Your task to perform on an android device: Open display settings Image 0: 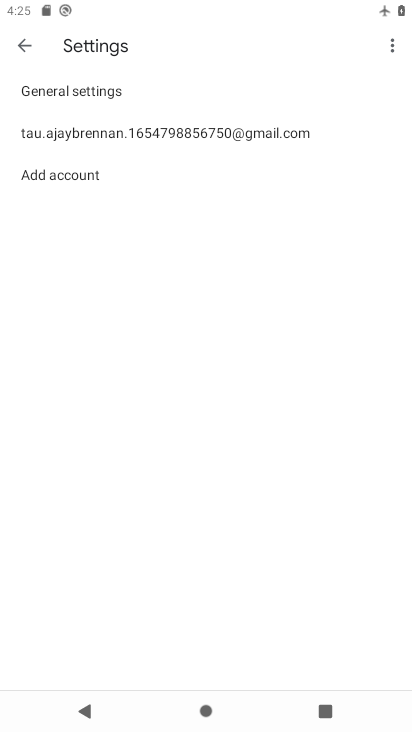
Step 0: press home button
Your task to perform on an android device: Open display settings Image 1: 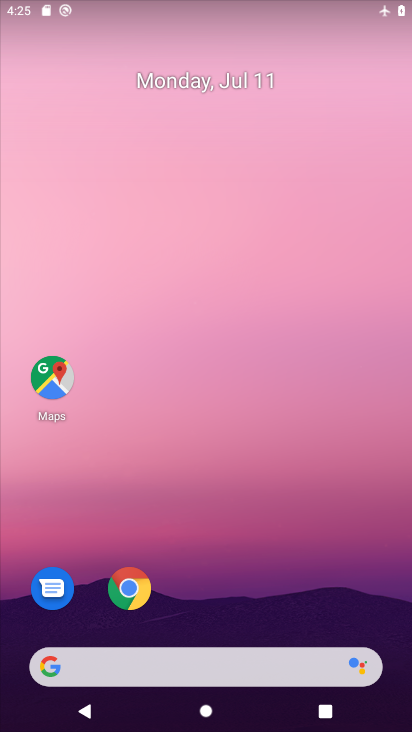
Step 1: drag from (378, 613) to (385, 139)
Your task to perform on an android device: Open display settings Image 2: 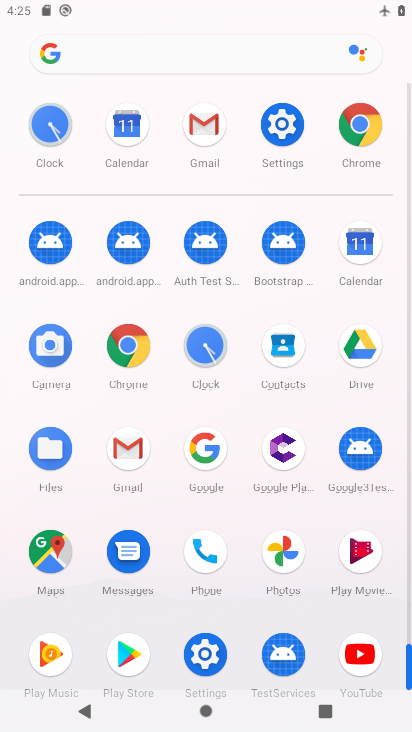
Step 2: click (288, 131)
Your task to perform on an android device: Open display settings Image 3: 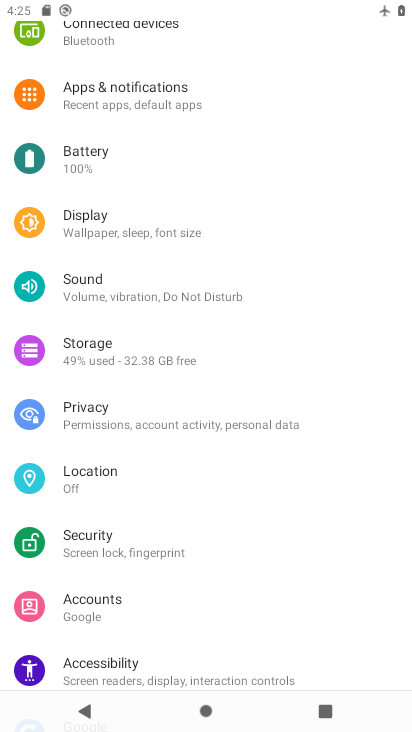
Step 3: drag from (288, 131) to (284, 231)
Your task to perform on an android device: Open display settings Image 4: 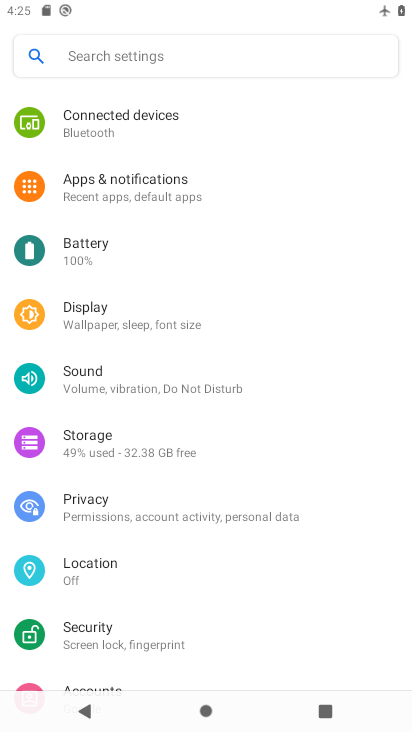
Step 4: drag from (325, 324) to (309, 429)
Your task to perform on an android device: Open display settings Image 5: 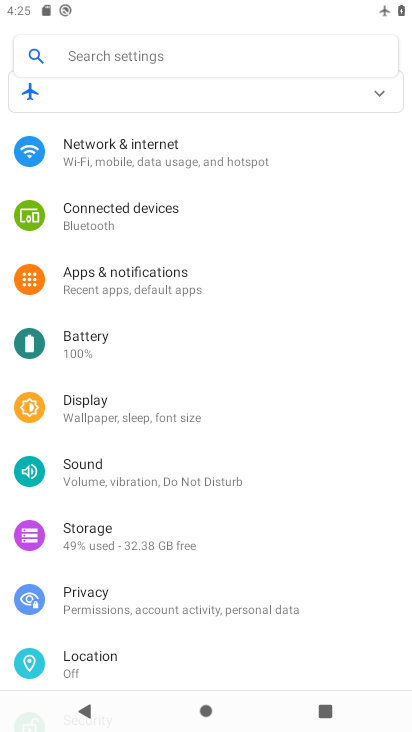
Step 5: drag from (280, 275) to (283, 372)
Your task to perform on an android device: Open display settings Image 6: 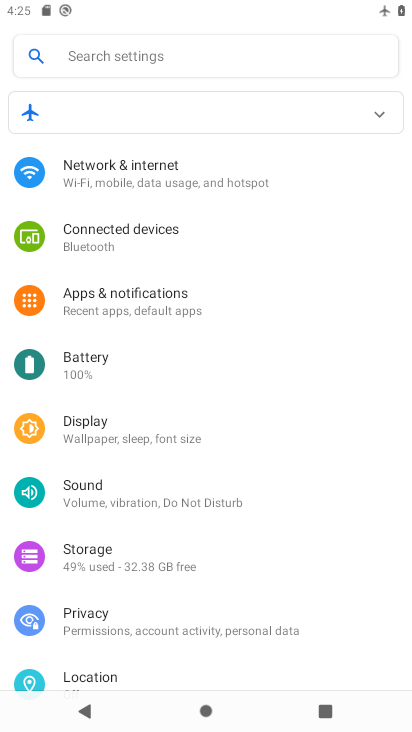
Step 6: click (262, 437)
Your task to perform on an android device: Open display settings Image 7: 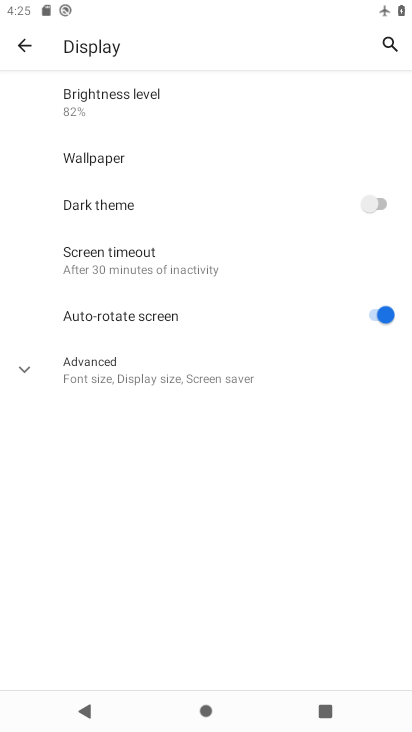
Step 7: task complete